Your task to perform on an android device: See recent photos Image 0: 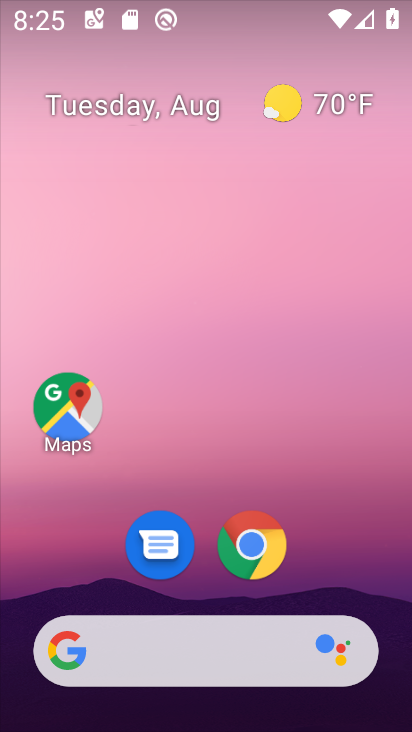
Step 0: drag from (134, 677) to (203, 171)
Your task to perform on an android device: See recent photos Image 1: 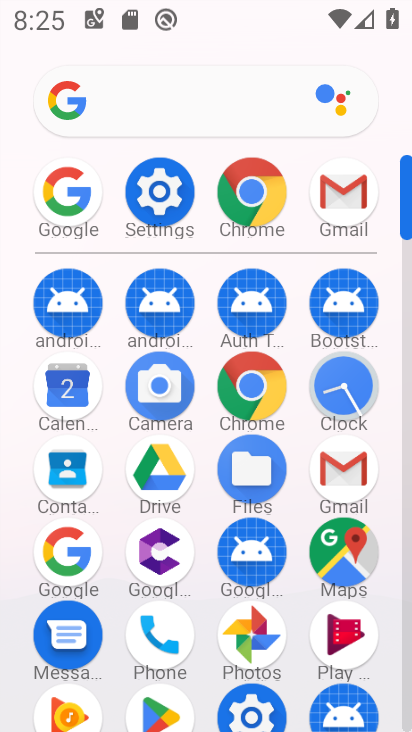
Step 1: drag from (260, 541) to (316, 67)
Your task to perform on an android device: See recent photos Image 2: 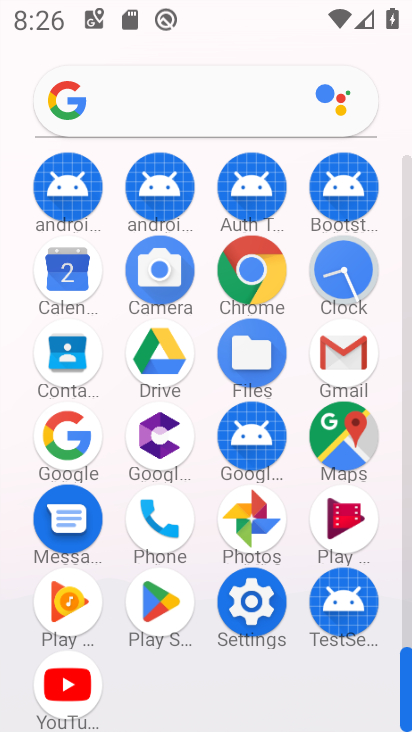
Step 2: click (242, 527)
Your task to perform on an android device: See recent photos Image 3: 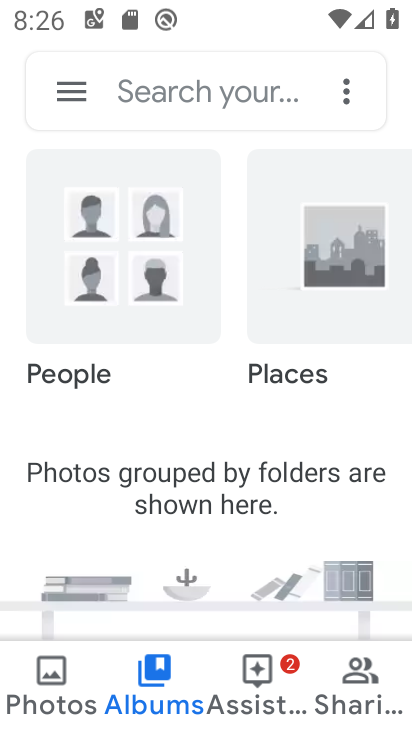
Step 3: click (55, 685)
Your task to perform on an android device: See recent photos Image 4: 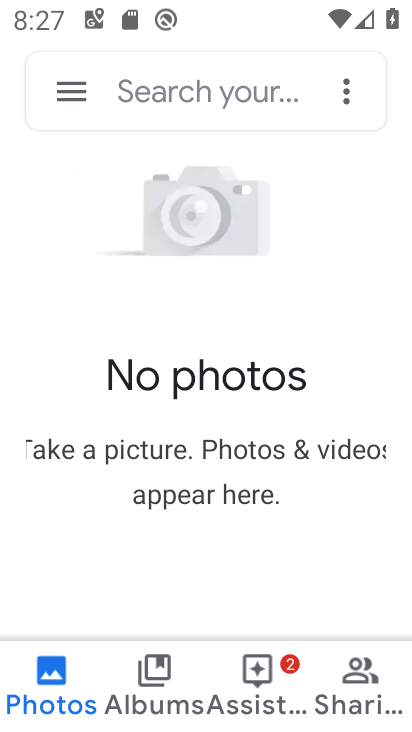
Step 4: task complete